Your task to perform on an android device: turn off notifications in google photos Image 0: 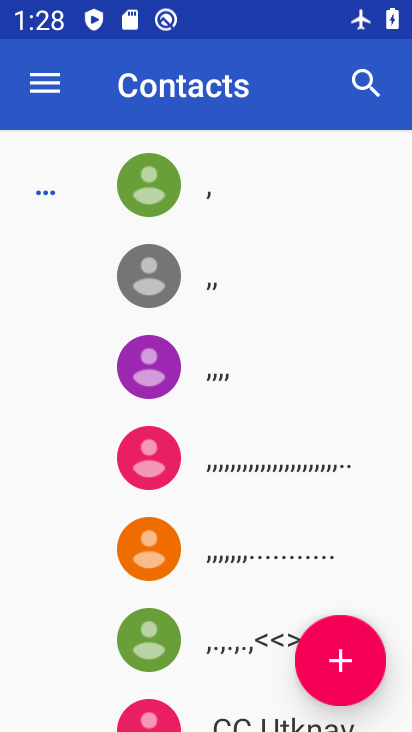
Step 0: press home button
Your task to perform on an android device: turn off notifications in google photos Image 1: 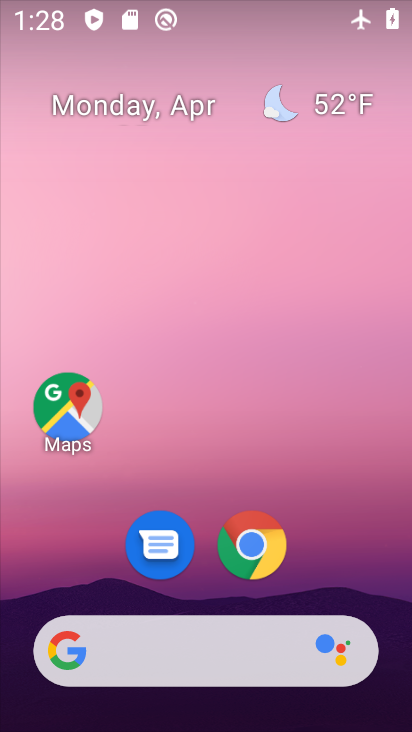
Step 1: drag from (217, 661) to (201, 193)
Your task to perform on an android device: turn off notifications in google photos Image 2: 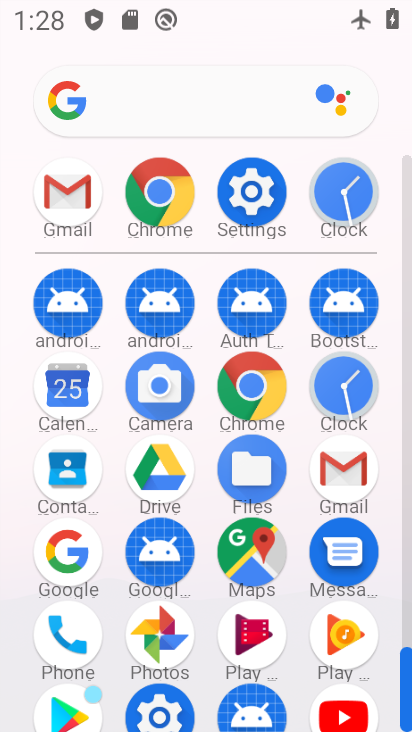
Step 2: click (165, 625)
Your task to perform on an android device: turn off notifications in google photos Image 3: 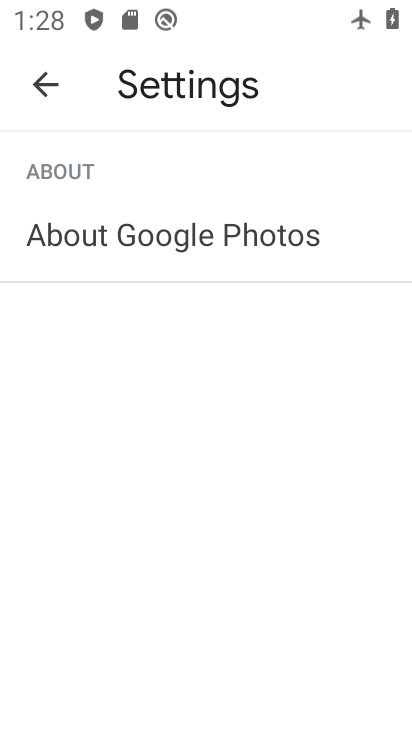
Step 3: click (36, 87)
Your task to perform on an android device: turn off notifications in google photos Image 4: 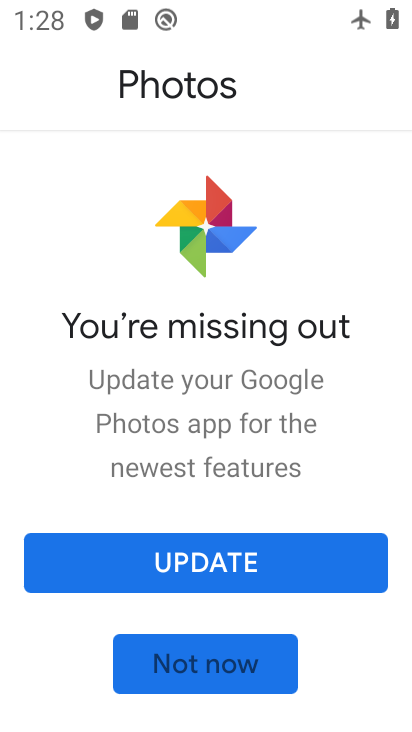
Step 4: task complete